Your task to perform on an android device: Add macbook air to the cart on costco.com Image 0: 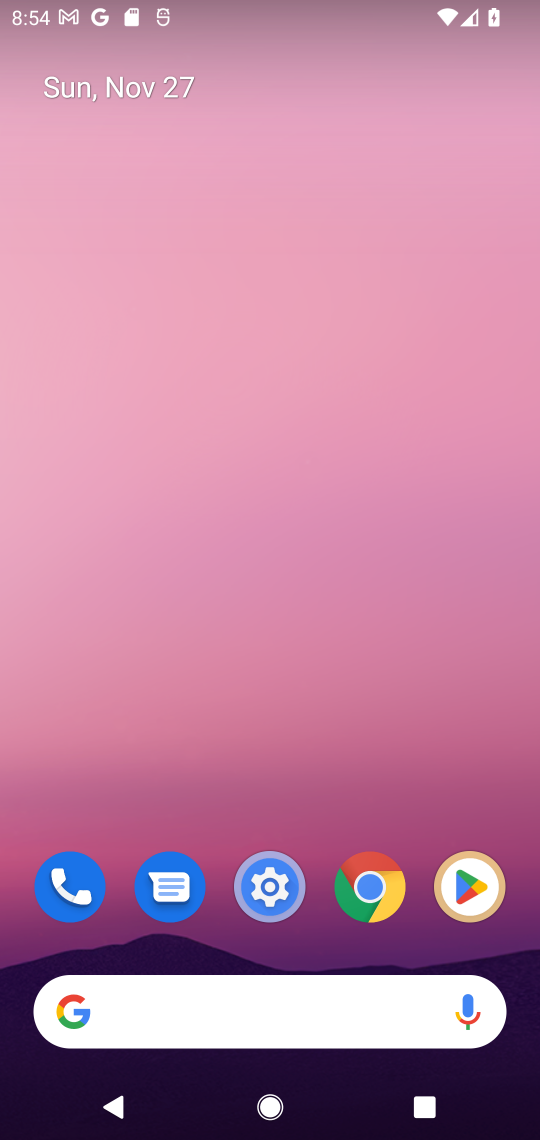
Step 0: click (202, 1003)
Your task to perform on an android device: Add macbook air to the cart on costco.com Image 1: 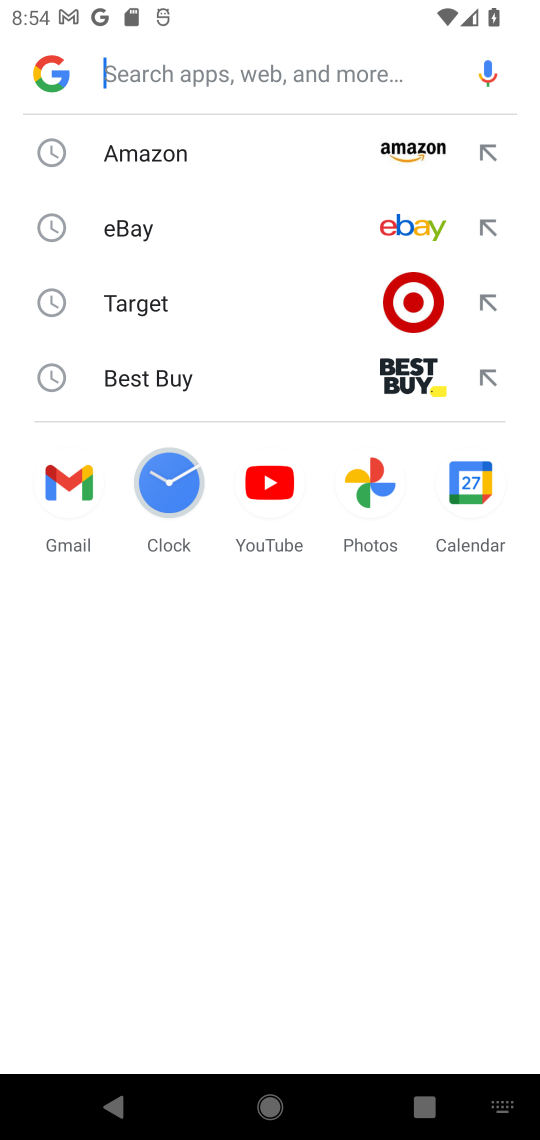
Step 1: type "costco"
Your task to perform on an android device: Add macbook air to the cart on costco.com Image 2: 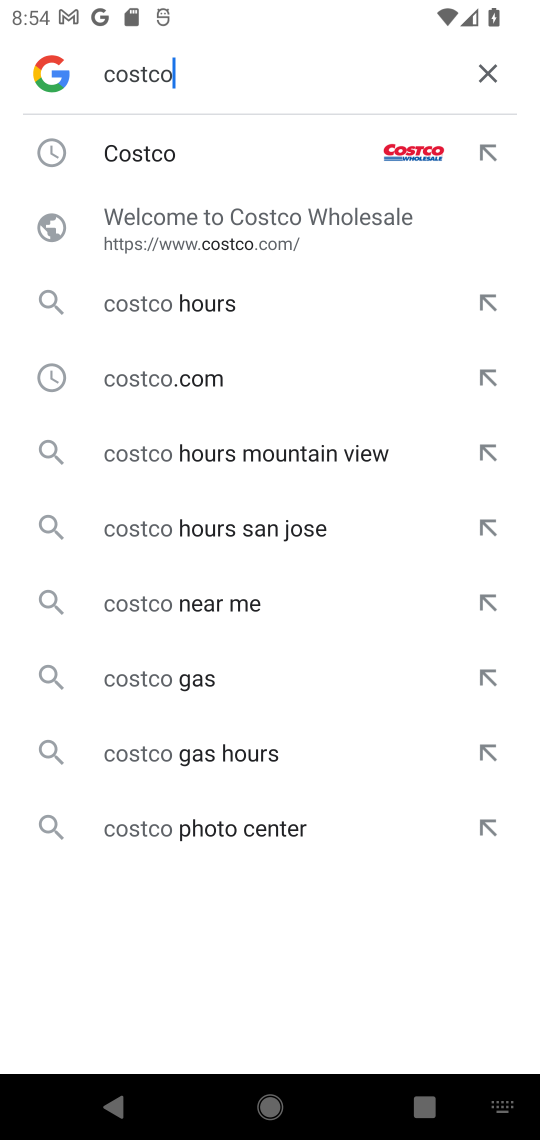
Step 2: click (217, 136)
Your task to perform on an android device: Add macbook air to the cart on costco.com Image 3: 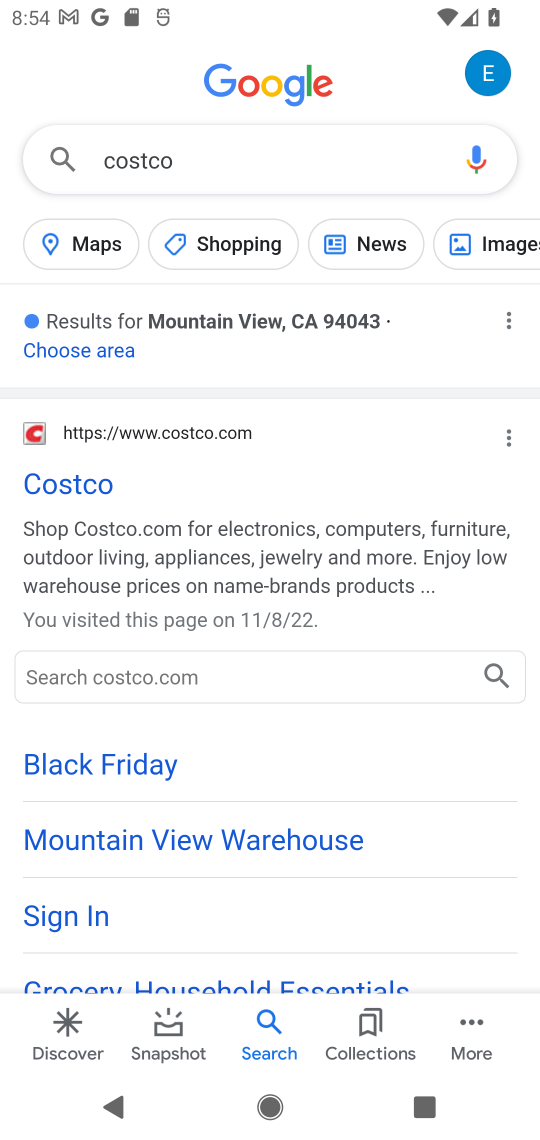
Step 3: click (127, 465)
Your task to perform on an android device: Add macbook air to the cart on costco.com Image 4: 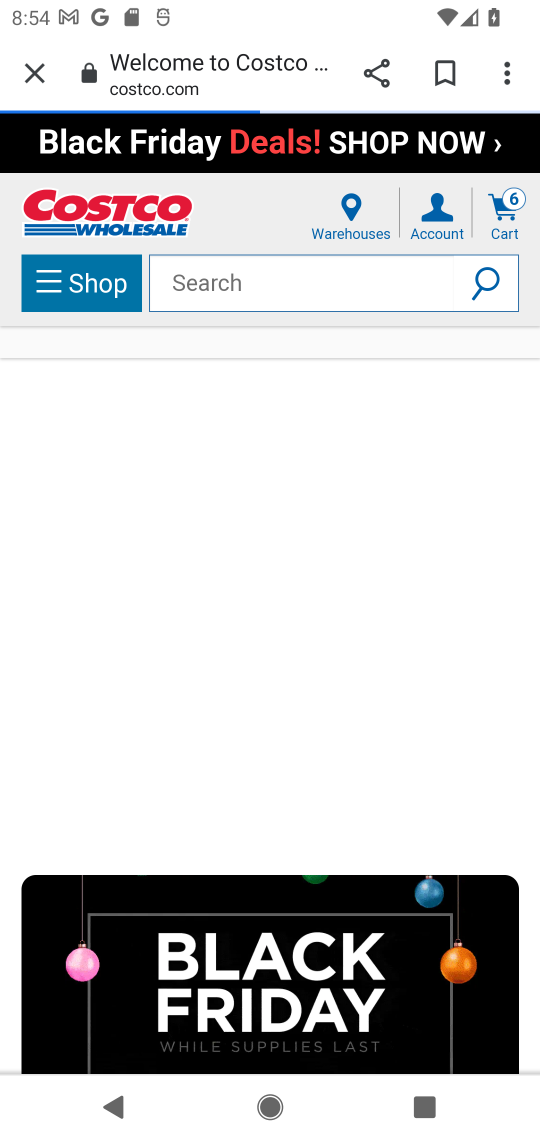
Step 4: click (208, 287)
Your task to perform on an android device: Add macbook air to the cart on costco.com Image 5: 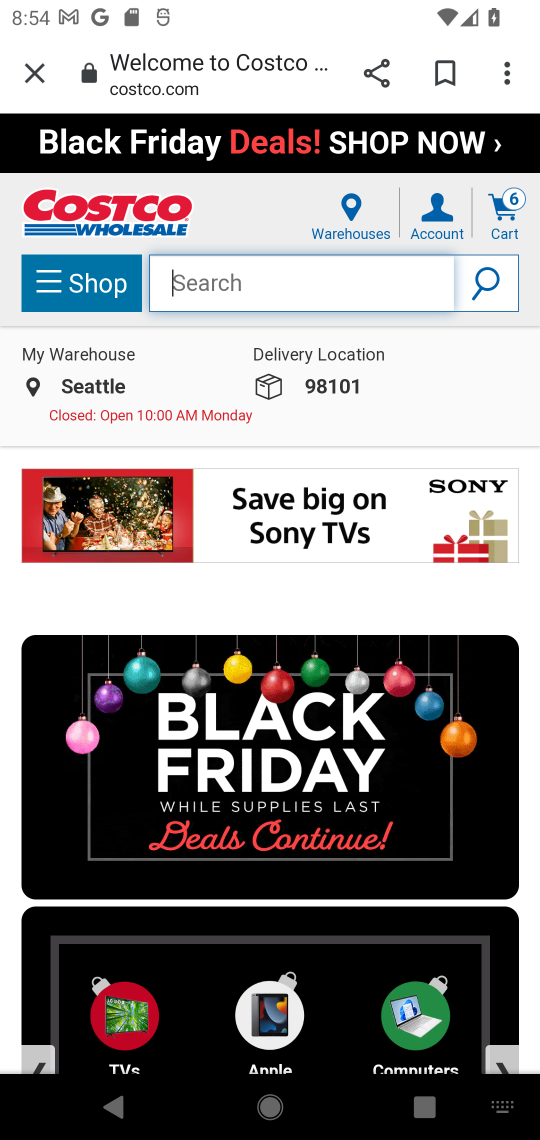
Step 5: type "macbook air"
Your task to perform on an android device: Add macbook air to the cart on costco.com Image 6: 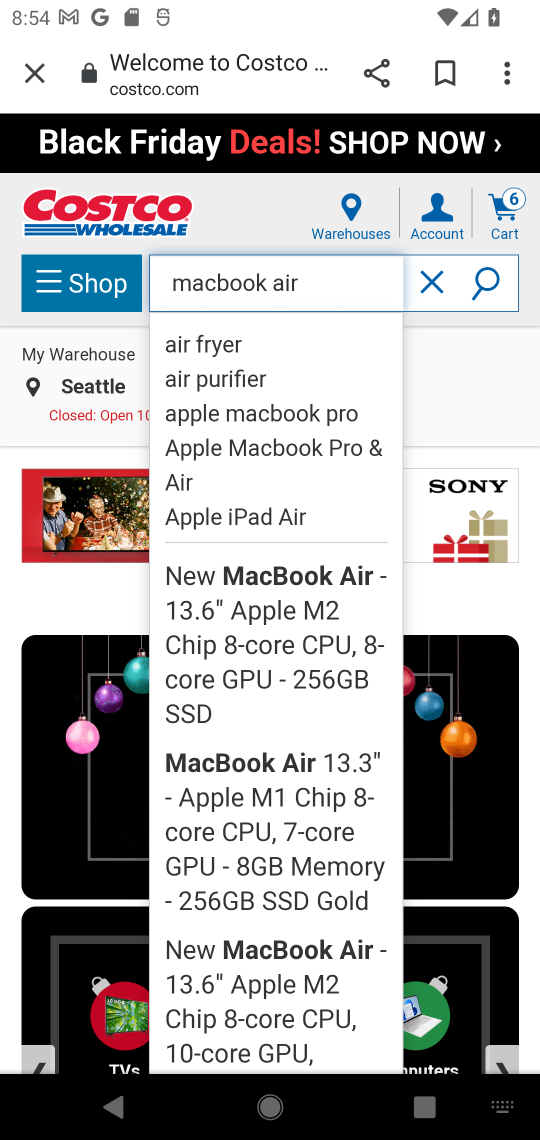
Step 6: click (507, 298)
Your task to perform on an android device: Add macbook air to the cart on costco.com Image 7: 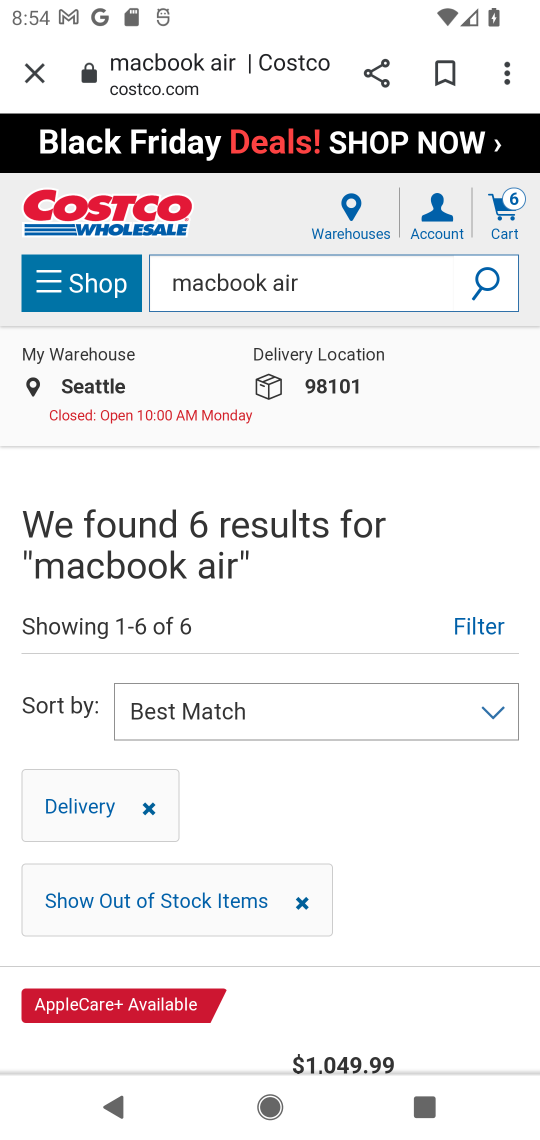
Step 7: task complete